Your task to perform on an android device: open chrome and create a bookmark for the current page Image 0: 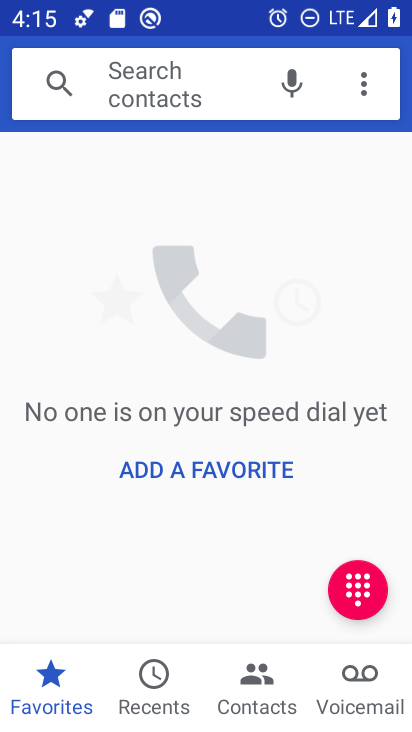
Step 0: press back button
Your task to perform on an android device: open chrome and create a bookmark for the current page Image 1: 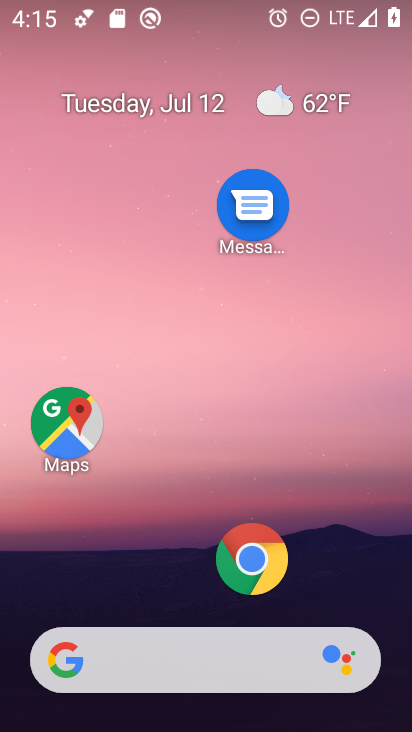
Step 1: click (260, 552)
Your task to perform on an android device: open chrome and create a bookmark for the current page Image 2: 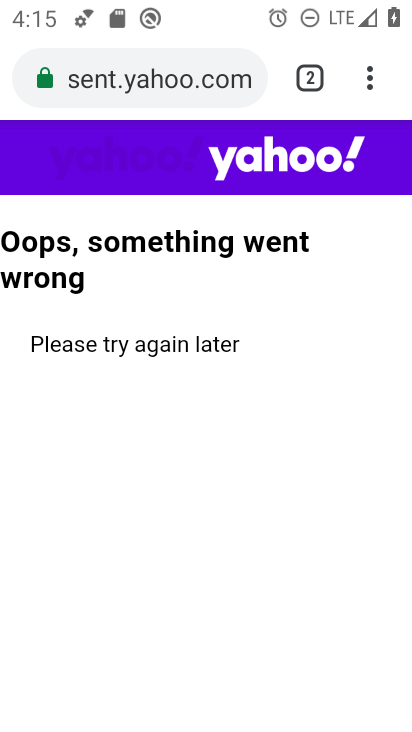
Step 2: task complete